Your task to perform on an android device: Go to Reddit.com Image 0: 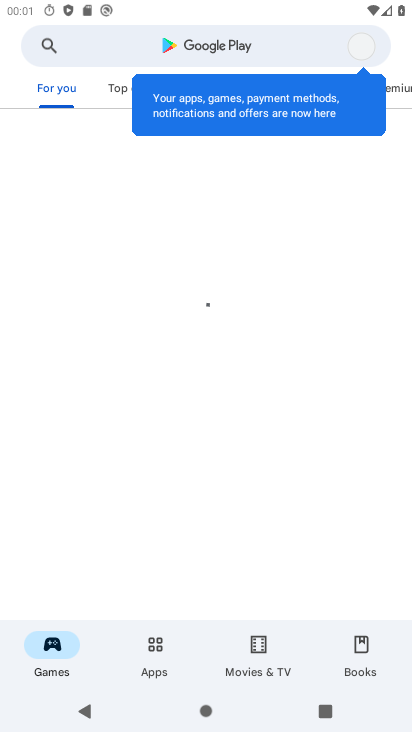
Step 0: press home button
Your task to perform on an android device: Go to Reddit.com Image 1: 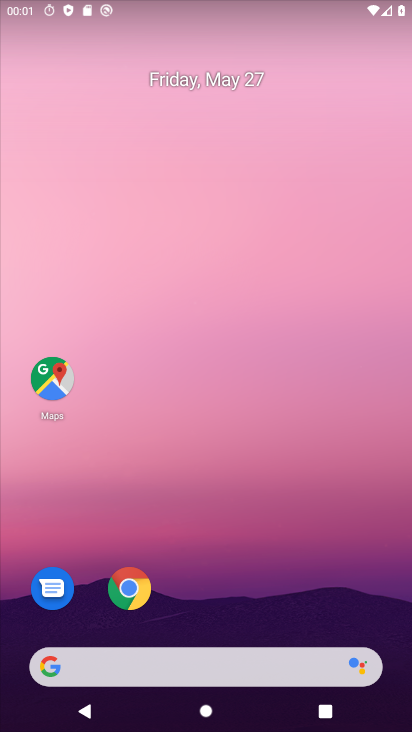
Step 1: drag from (152, 621) to (140, 212)
Your task to perform on an android device: Go to Reddit.com Image 2: 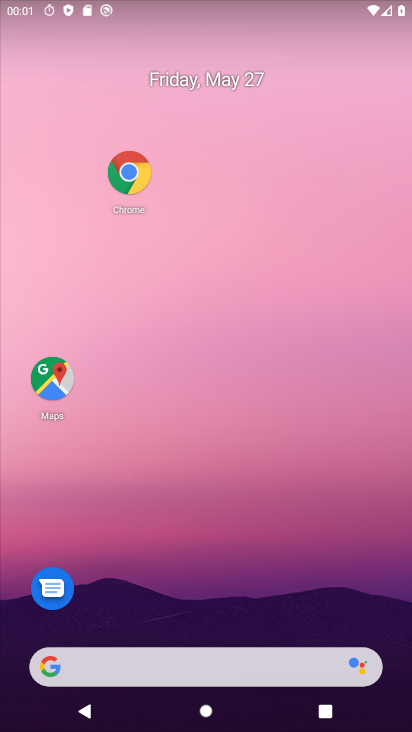
Step 2: drag from (259, 652) to (262, 71)
Your task to perform on an android device: Go to Reddit.com Image 3: 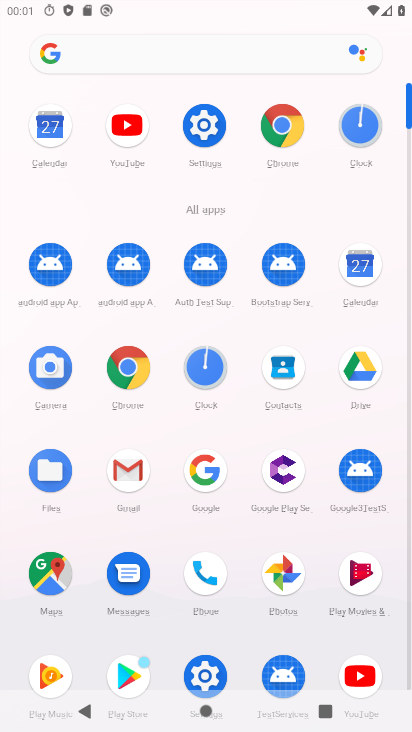
Step 3: click (283, 125)
Your task to perform on an android device: Go to Reddit.com Image 4: 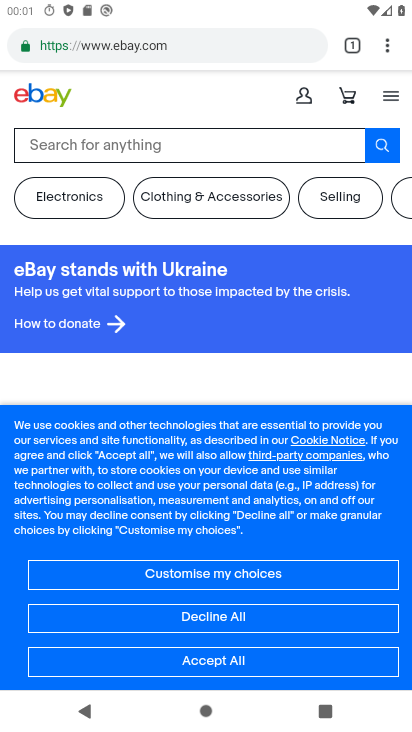
Step 4: press home button
Your task to perform on an android device: Go to Reddit.com Image 5: 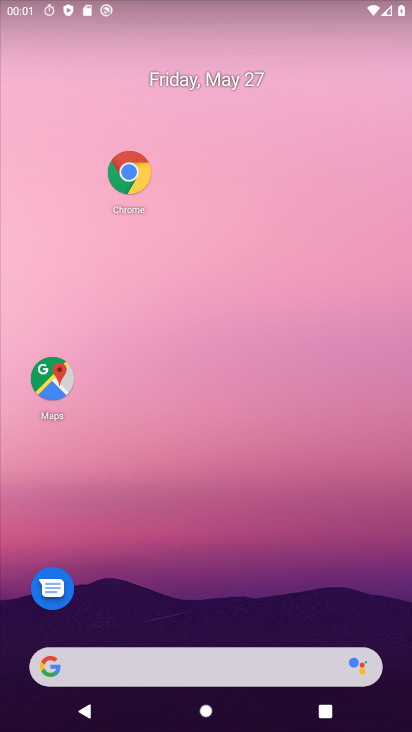
Step 5: drag from (208, 605) to (197, 242)
Your task to perform on an android device: Go to Reddit.com Image 6: 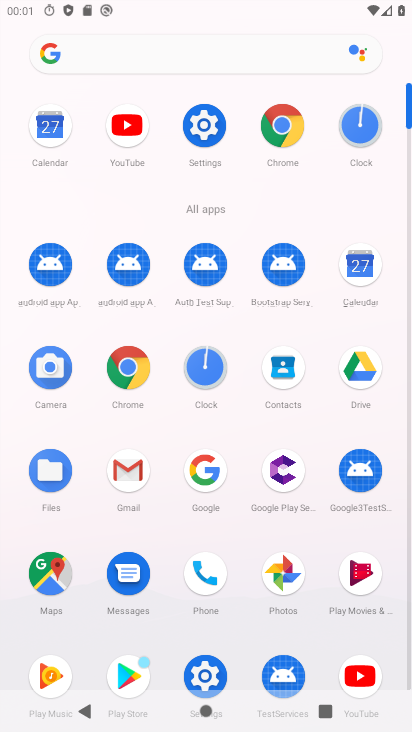
Step 6: click (198, 458)
Your task to perform on an android device: Go to Reddit.com Image 7: 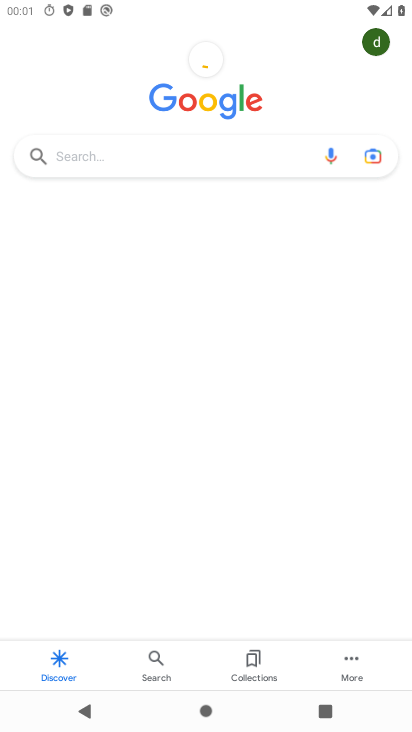
Step 7: click (97, 157)
Your task to perform on an android device: Go to Reddit.com Image 8: 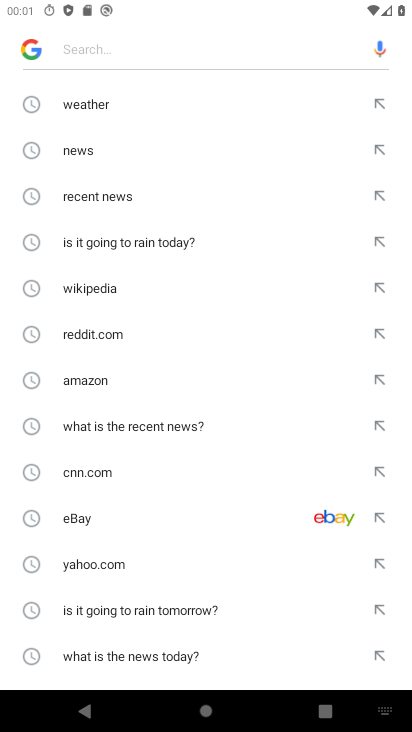
Step 8: click (103, 337)
Your task to perform on an android device: Go to Reddit.com Image 9: 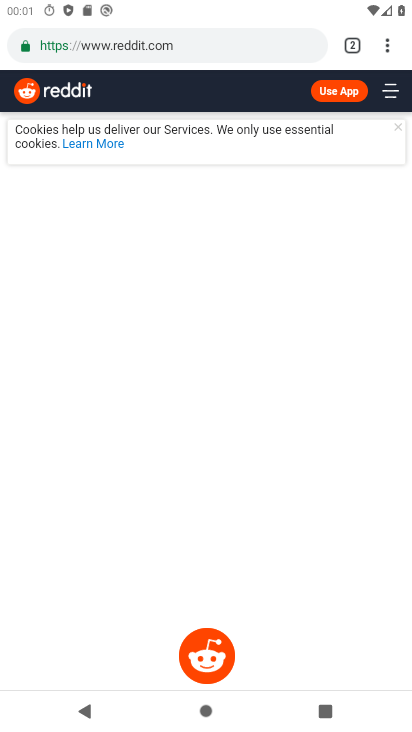
Step 9: task complete